Your task to perform on an android device: Open Reddit.com Image 0: 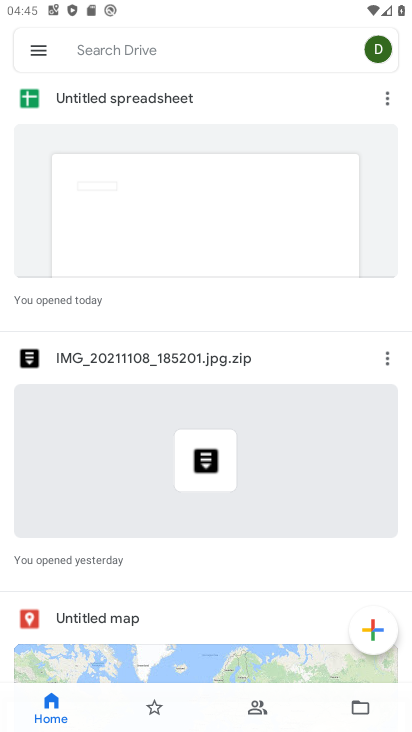
Step 0: press home button
Your task to perform on an android device: Open Reddit.com Image 1: 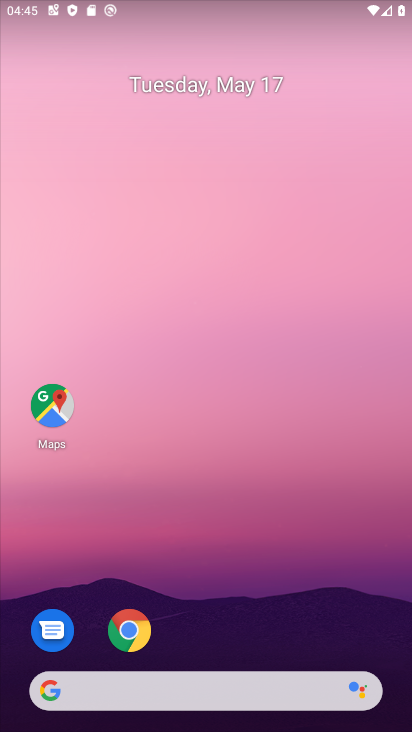
Step 1: click (132, 623)
Your task to perform on an android device: Open Reddit.com Image 2: 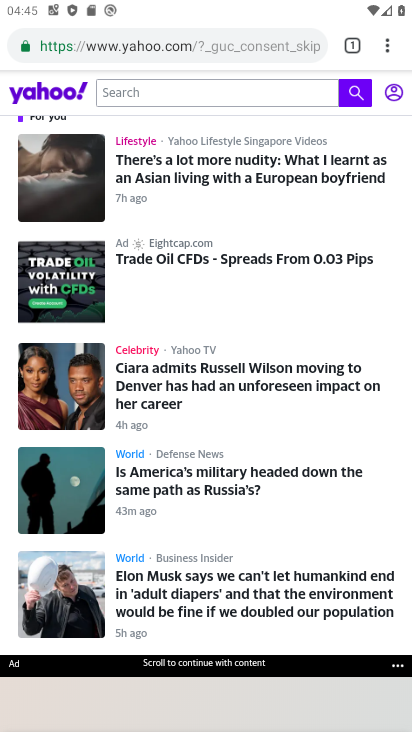
Step 2: click (152, 37)
Your task to perform on an android device: Open Reddit.com Image 3: 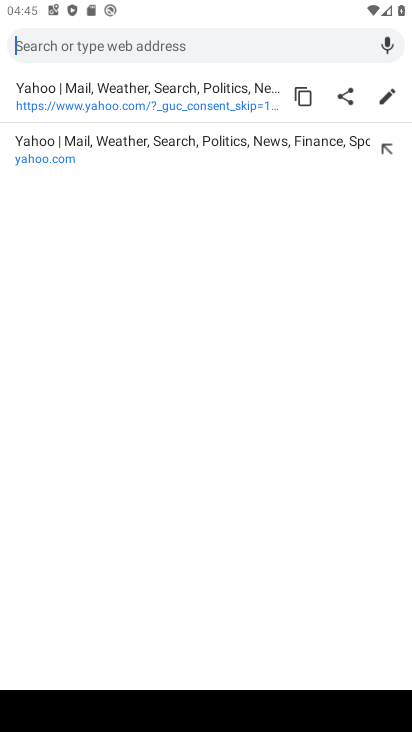
Step 3: click (147, 40)
Your task to perform on an android device: Open Reddit.com Image 4: 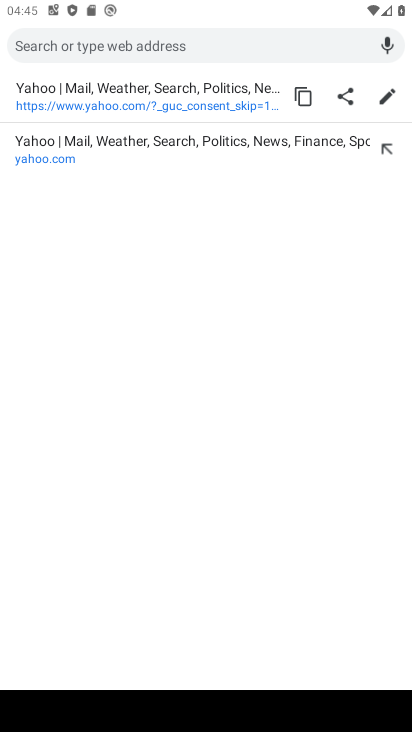
Step 4: type "Reddit.com"
Your task to perform on an android device: Open Reddit.com Image 5: 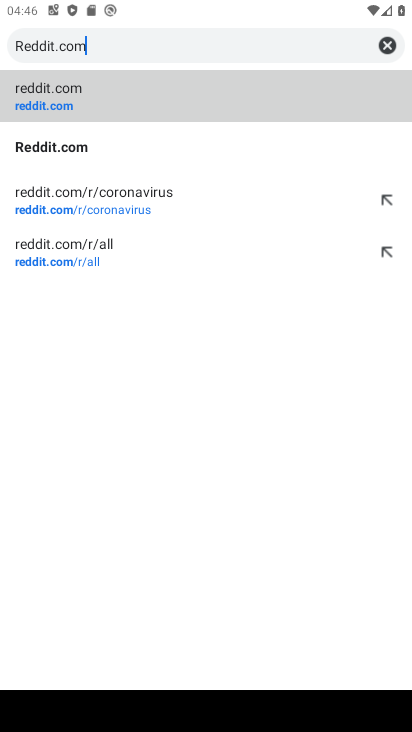
Step 5: click (26, 104)
Your task to perform on an android device: Open Reddit.com Image 6: 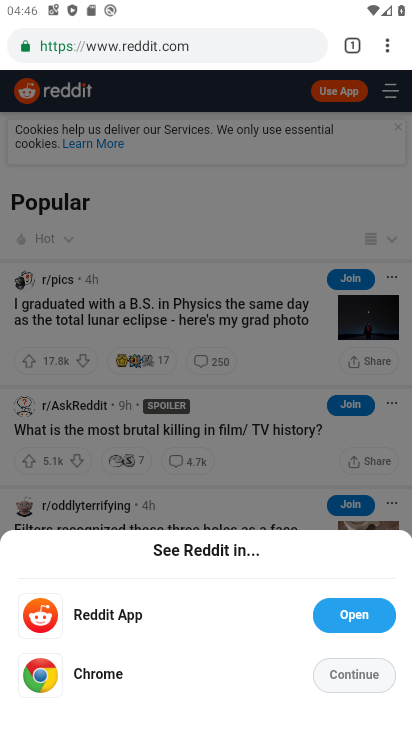
Step 6: task complete